Your task to perform on an android device: Open Amazon Image 0: 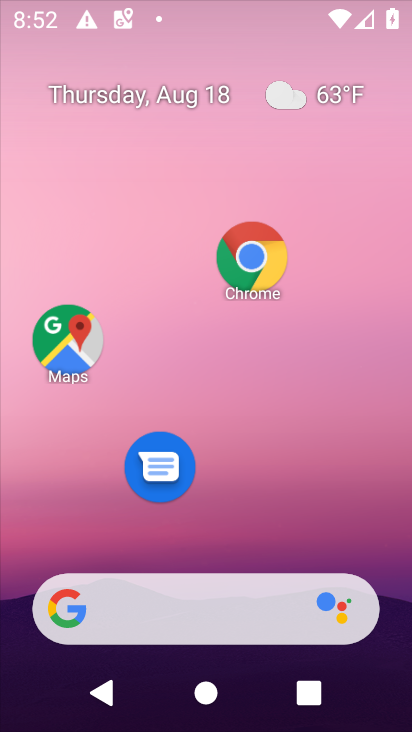
Step 0: drag from (304, 533) to (275, 80)
Your task to perform on an android device: Open Amazon Image 1: 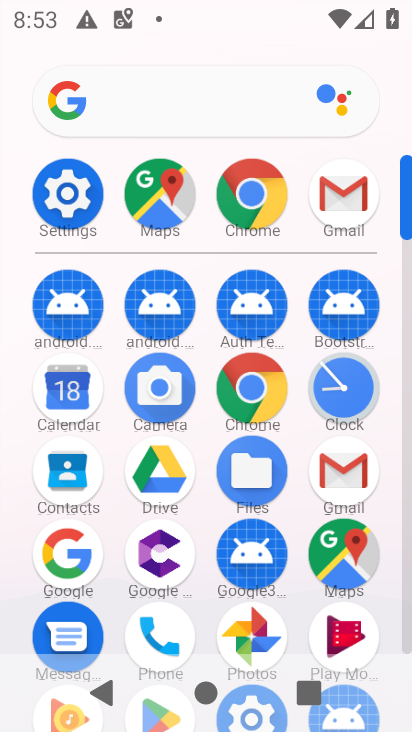
Step 1: click (342, 204)
Your task to perform on an android device: Open Amazon Image 2: 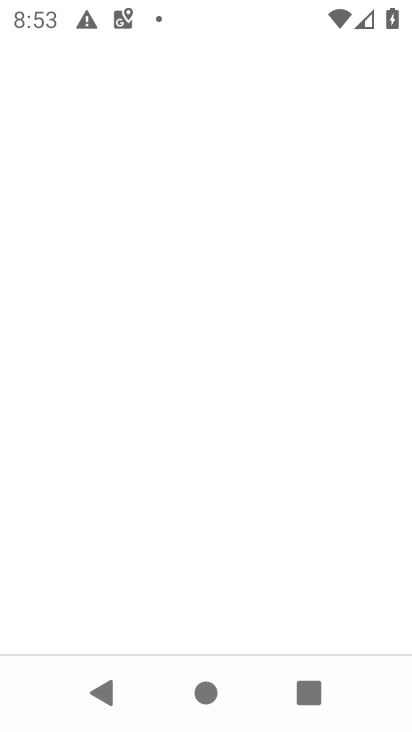
Step 2: task complete